Your task to perform on an android device: Open the calendar app, open the side menu, and click the "Day" option Image 0: 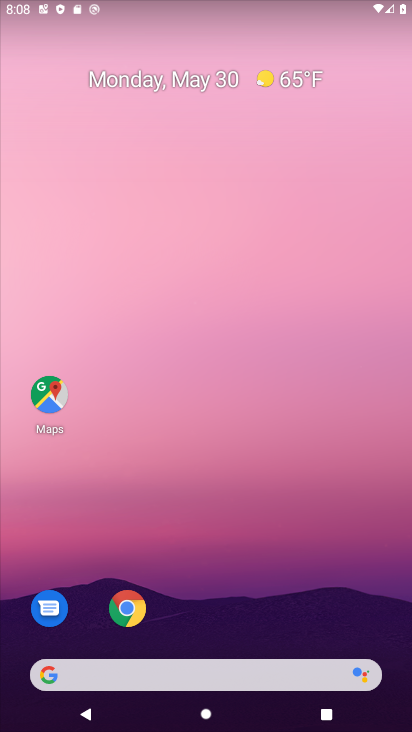
Step 0: drag from (213, 618) to (250, 236)
Your task to perform on an android device: Open the calendar app, open the side menu, and click the "Day" option Image 1: 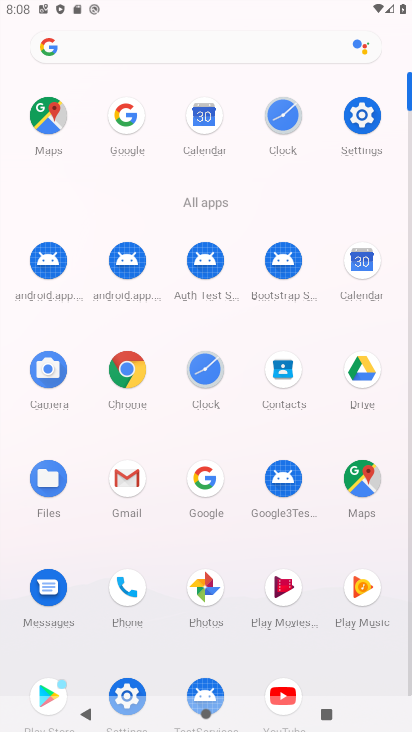
Step 1: click (209, 127)
Your task to perform on an android device: Open the calendar app, open the side menu, and click the "Day" option Image 2: 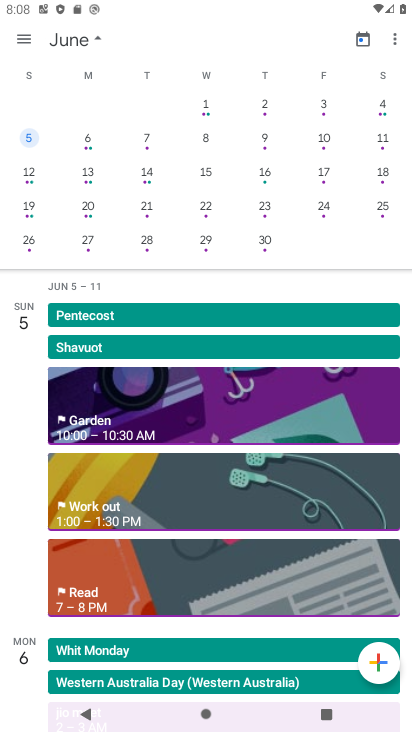
Step 2: click (22, 38)
Your task to perform on an android device: Open the calendar app, open the side menu, and click the "Day" option Image 3: 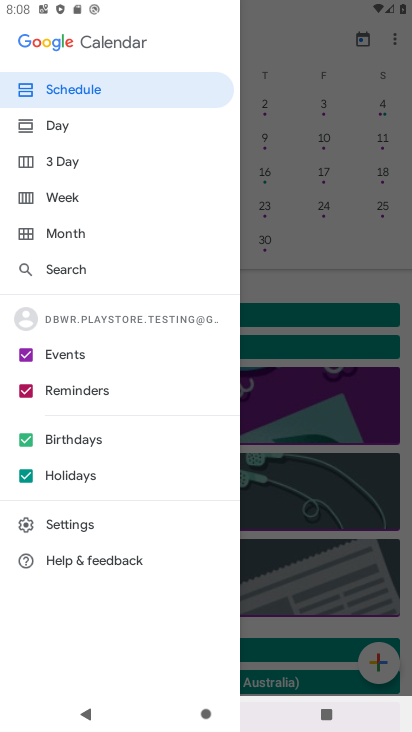
Step 3: click (85, 126)
Your task to perform on an android device: Open the calendar app, open the side menu, and click the "Day" option Image 4: 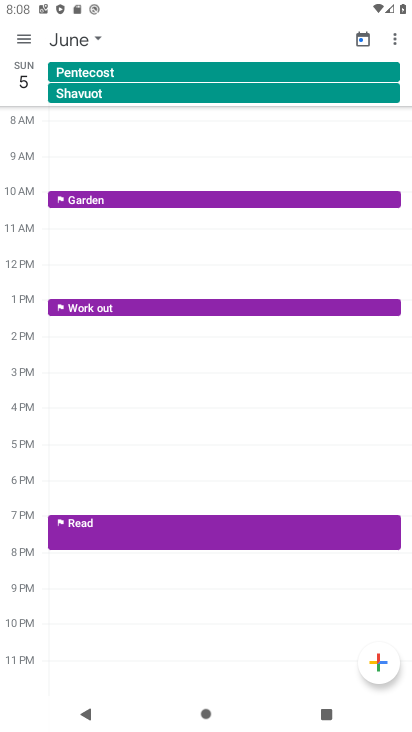
Step 4: task complete